Your task to perform on an android device: open app "Gboard" (install if not already installed) Image 0: 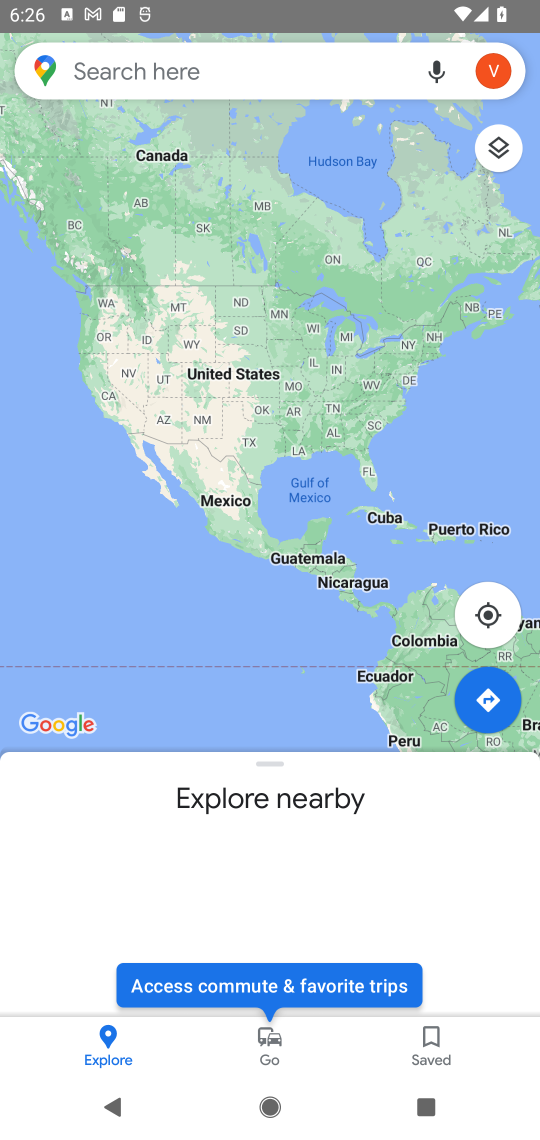
Step 0: press home button
Your task to perform on an android device: open app "Gboard" (install if not already installed) Image 1: 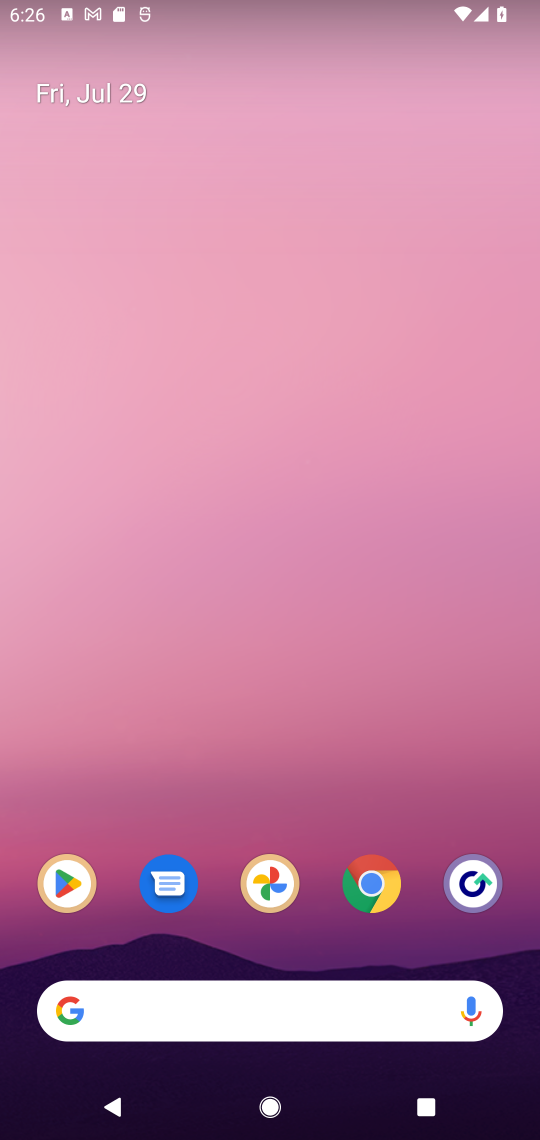
Step 1: click (52, 890)
Your task to perform on an android device: open app "Gboard" (install if not already installed) Image 2: 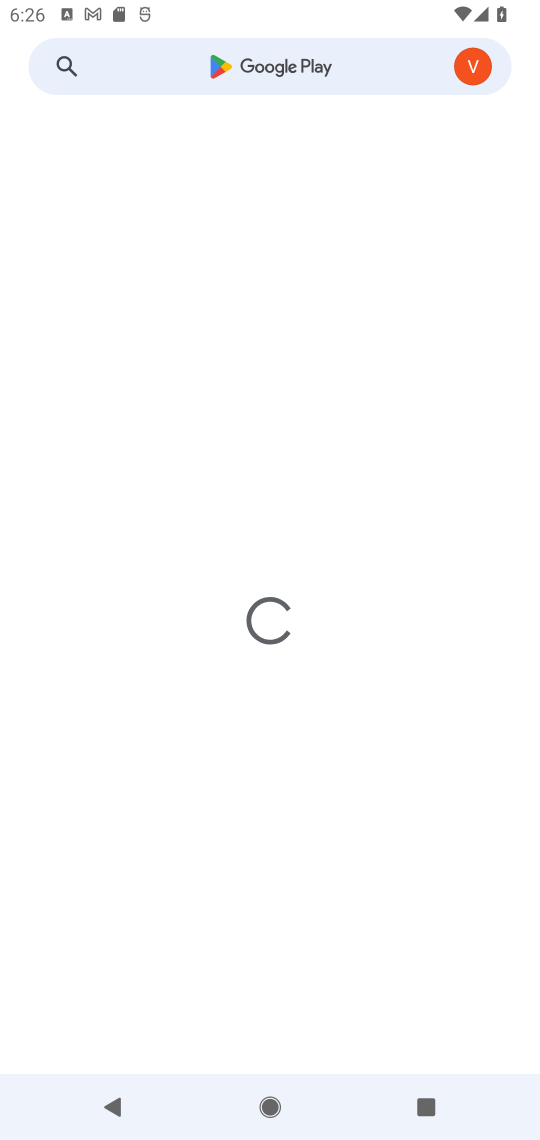
Step 2: click (255, 75)
Your task to perform on an android device: open app "Gboard" (install if not already installed) Image 3: 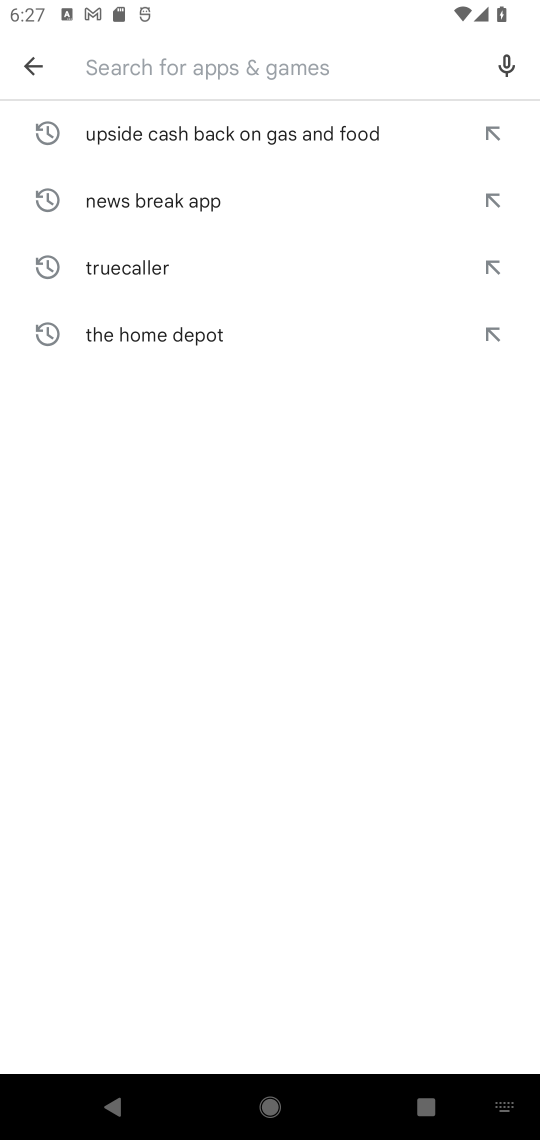
Step 3: type "gboard"
Your task to perform on an android device: open app "Gboard" (install if not already installed) Image 4: 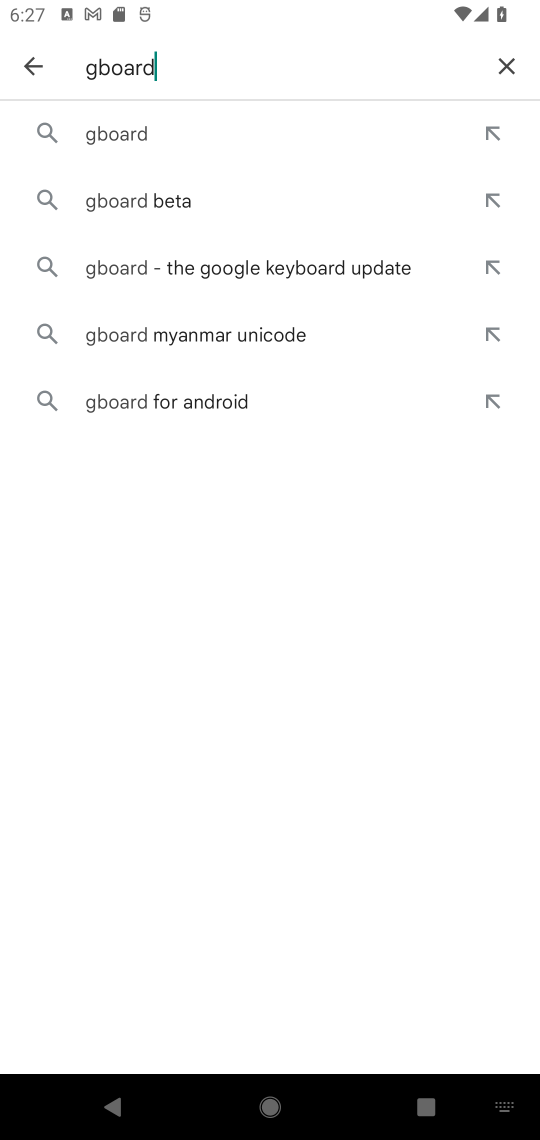
Step 4: click (212, 126)
Your task to perform on an android device: open app "Gboard" (install if not already installed) Image 5: 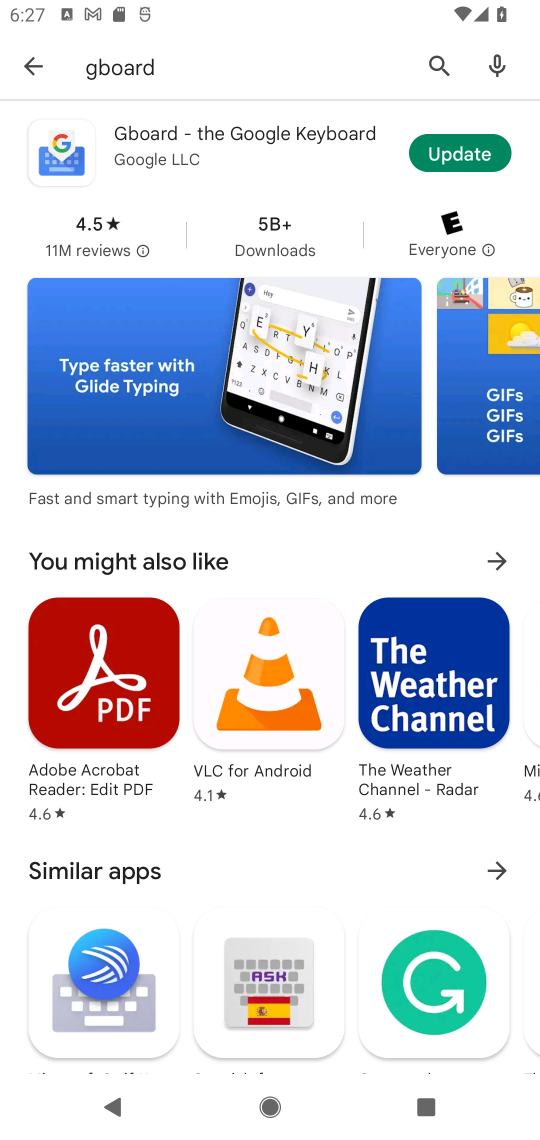
Step 5: click (206, 144)
Your task to perform on an android device: open app "Gboard" (install if not already installed) Image 6: 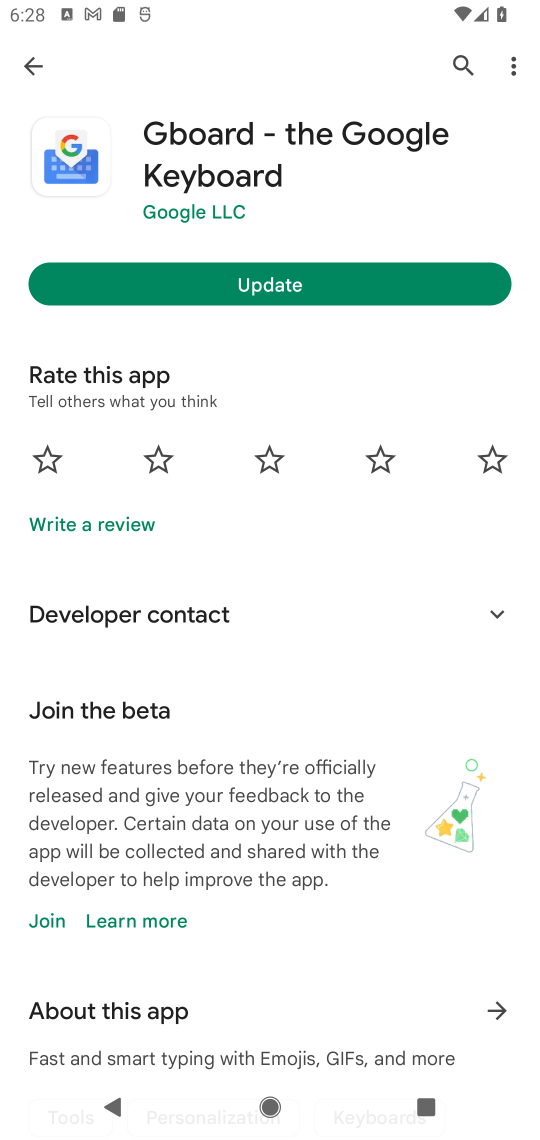
Step 6: task complete